Your task to perform on an android device: Open Youtube and go to "Your channel" Image 0: 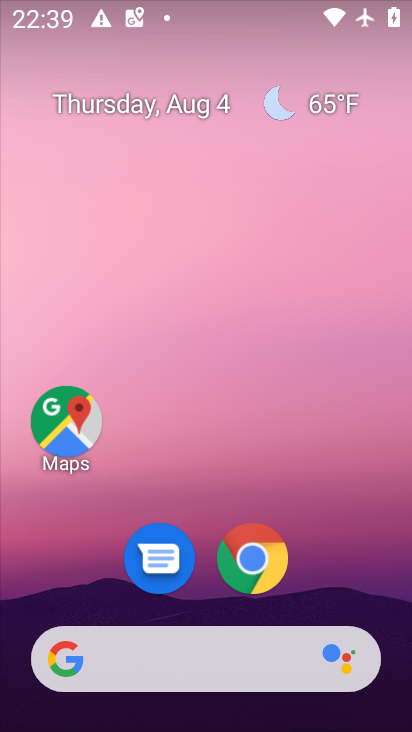
Step 0: drag from (370, 560) to (350, 192)
Your task to perform on an android device: Open Youtube and go to "Your channel" Image 1: 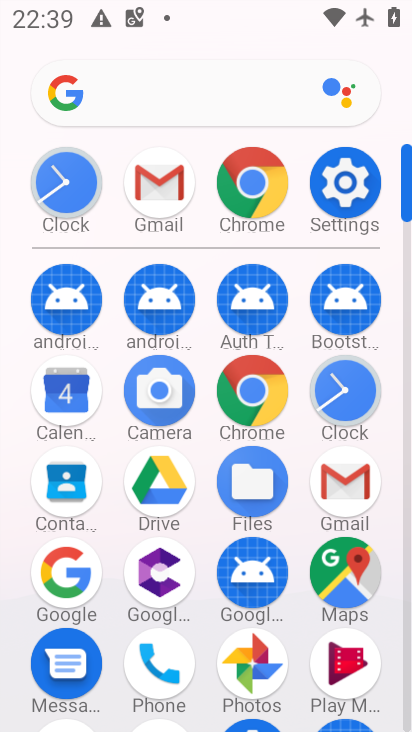
Step 1: drag from (196, 599) to (210, 268)
Your task to perform on an android device: Open Youtube and go to "Your channel" Image 2: 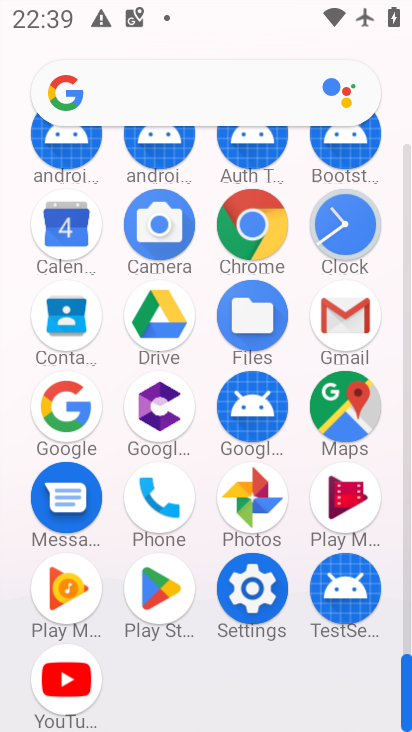
Step 2: click (79, 692)
Your task to perform on an android device: Open Youtube and go to "Your channel" Image 3: 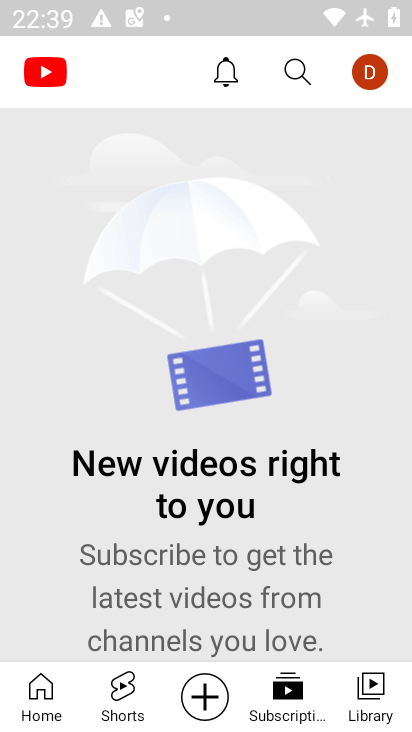
Step 3: click (386, 79)
Your task to perform on an android device: Open Youtube and go to "Your channel" Image 4: 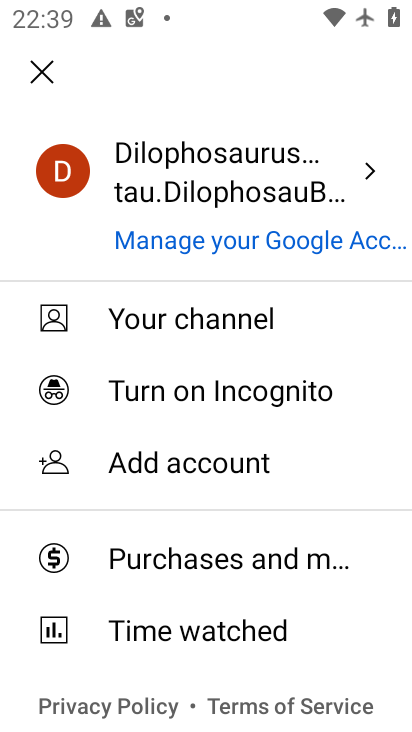
Step 4: click (207, 315)
Your task to perform on an android device: Open Youtube and go to "Your channel" Image 5: 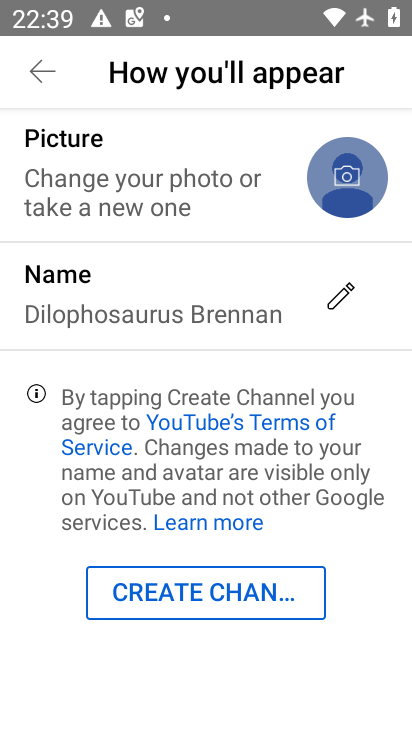
Step 5: task complete